Your task to perform on an android device: Open Youtube and go to the subscriptions tab Image 0: 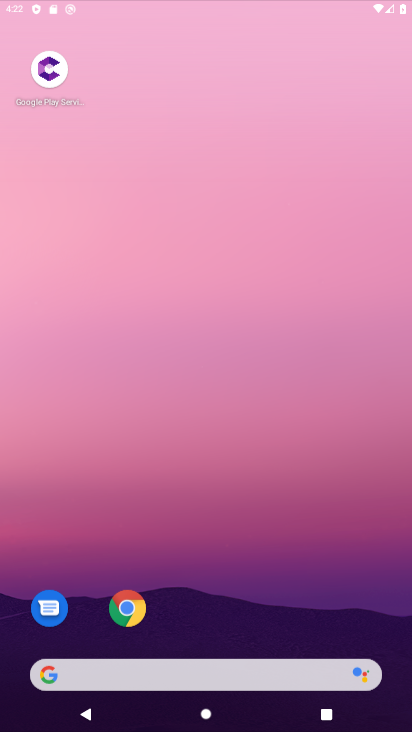
Step 0: click (164, 29)
Your task to perform on an android device: Open Youtube and go to the subscriptions tab Image 1: 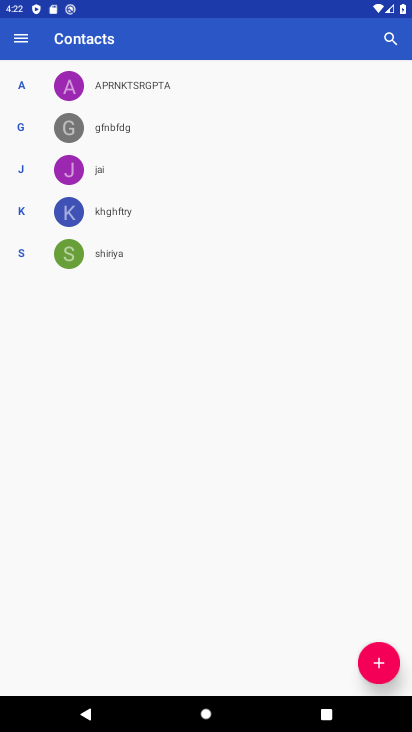
Step 1: press home button
Your task to perform on an android device: Open Youtube and go to the subscriptions tab Image 2: 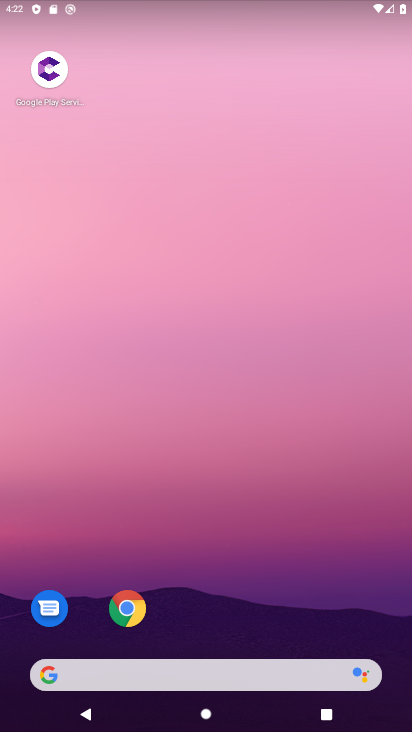
Step 2: drag from (260, 642) to (205, 63)
Your task to perform on an android device: Open Youtube and go to the subscriptions tab Image 3: 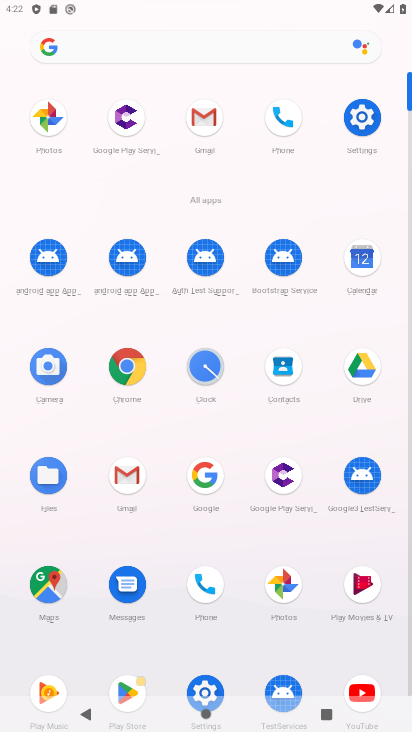
Step 3: click (363, 690)
Your task to perform on an android device: Open Youtube and go to the subscriptions tab Image 4: 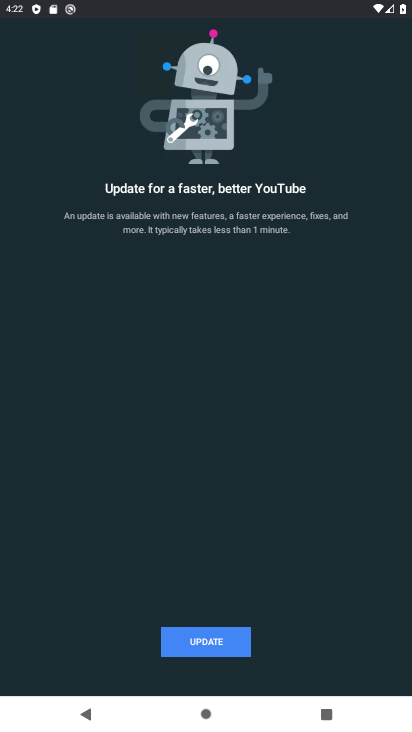
Step 4: click (241, 650)
Your task to perform on an android device: Open Youtube and go to the subscriptions tab Image 5: 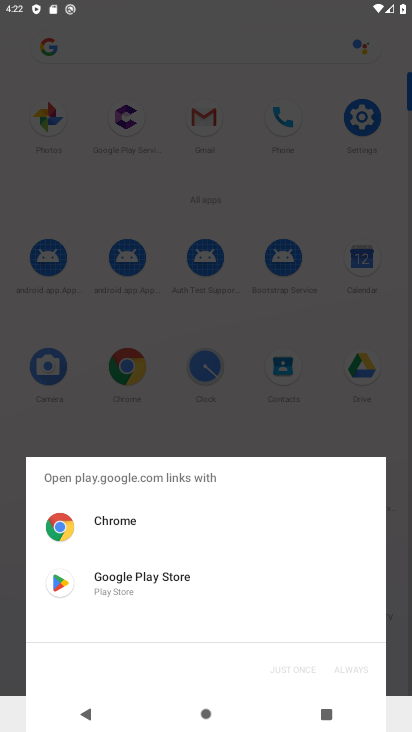
Step 5: click (172, 579)
Your task to perform on an android device: Open Youtube and go to the subscriptions tab Image 6: 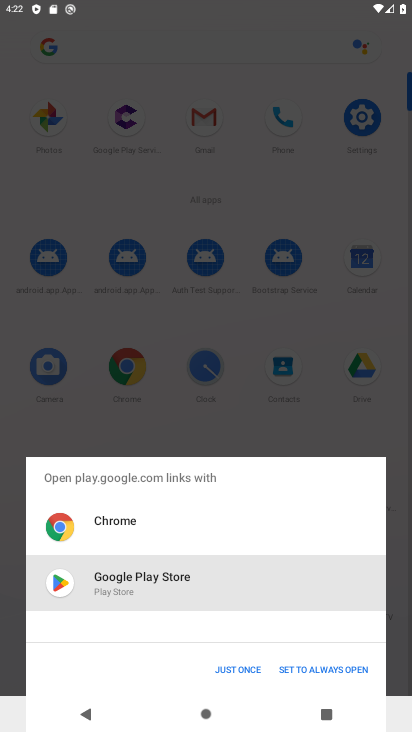
Step 6: click (249, 670)
Your task to perform on an android device: Open Youtube and go to the subscriptions tab Image 7: 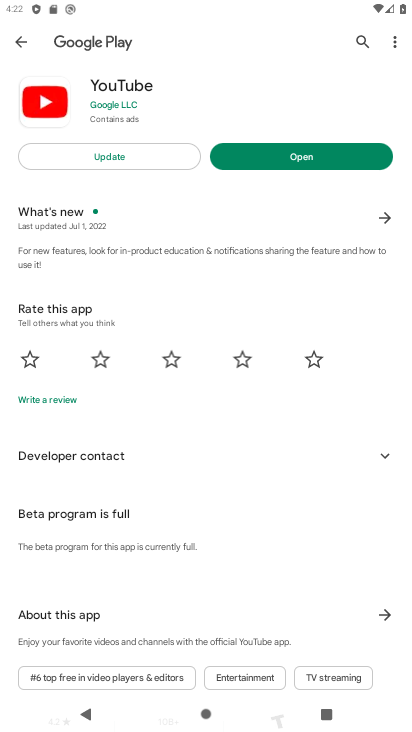
Step 7: click (122, 162)
Your task to perform on an android device: Open Youtube and go to the subscriptions tab Image 8: 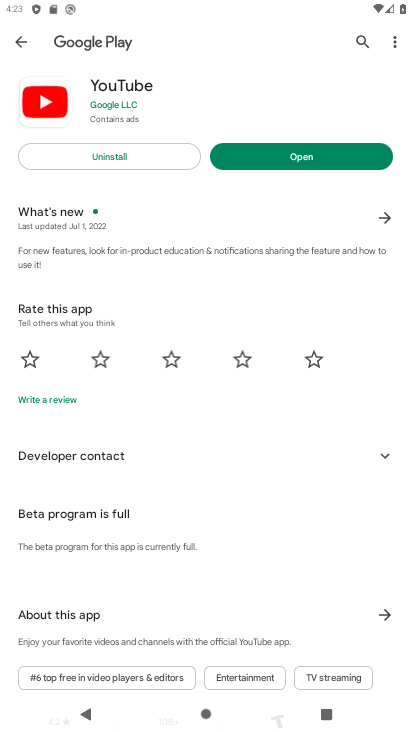
Step 8: click (354, 165)
Your task to perform on an android device: Open Youtube and go to the subscriptions tab Image 9: 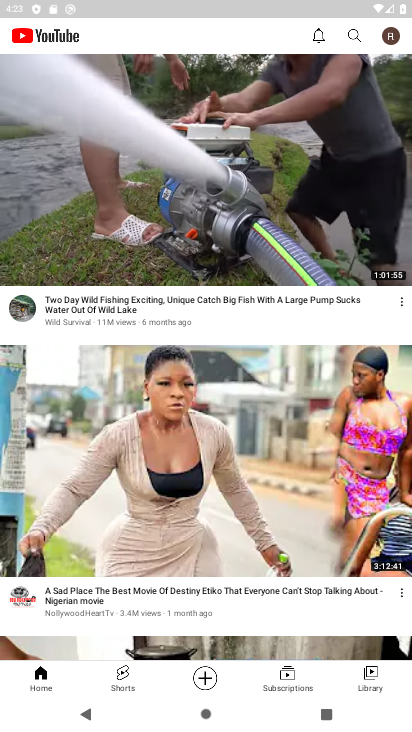
Step 9: click (293, 686)
Your task to perform on an android device: Open Youtube and go to the subscriptions tab Image 10: 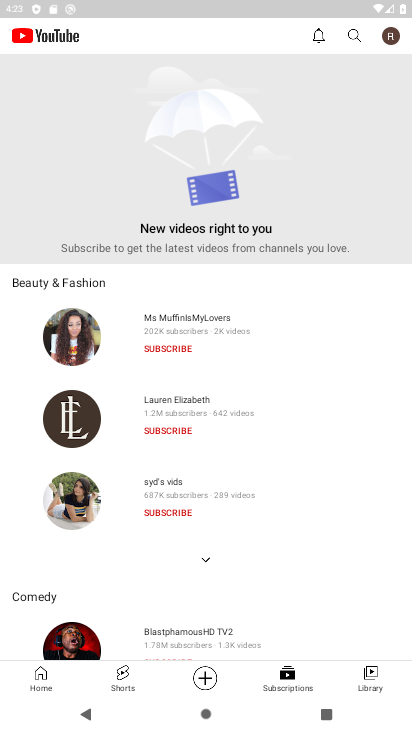
Step 10: task complete